Your task to perform on an android device: What's the weather going to be this weekend? Image 0: 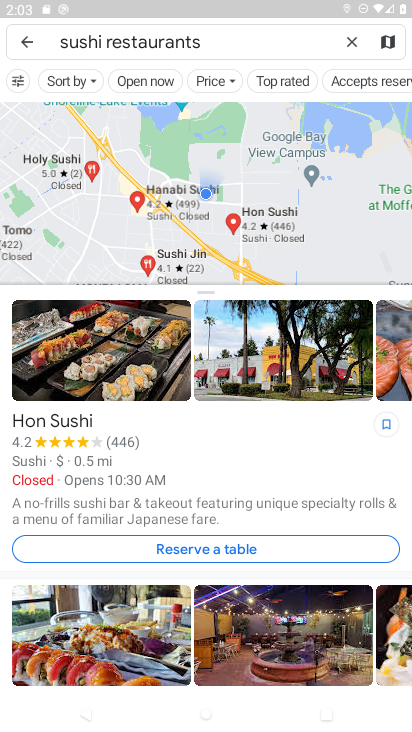
Step 0: press home button
Your task to perform on an android device: What's the weather going to be this weekend? Image 1: 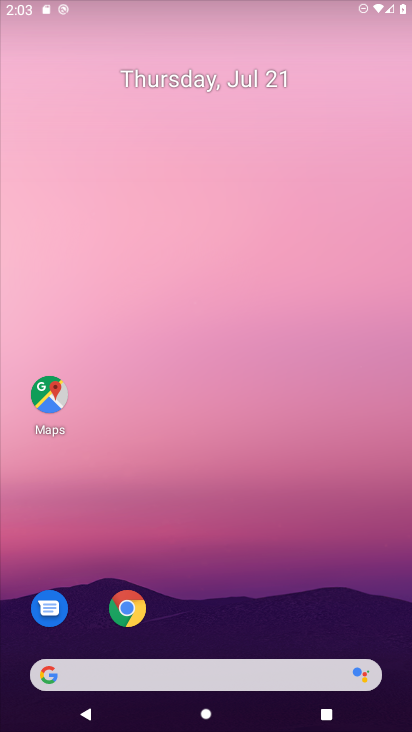
Step 1: drag from (237, 609) to (192, 79)
Your task to perform on an android device: What's the weather going to be this weekend? Image 2: 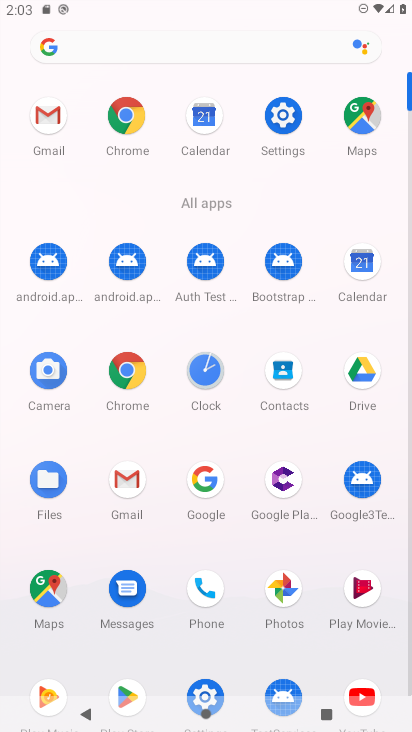
Step 2: click (193, 474)
Your task to perform on an android device: What's the weather going to be this weekend? Image 3: 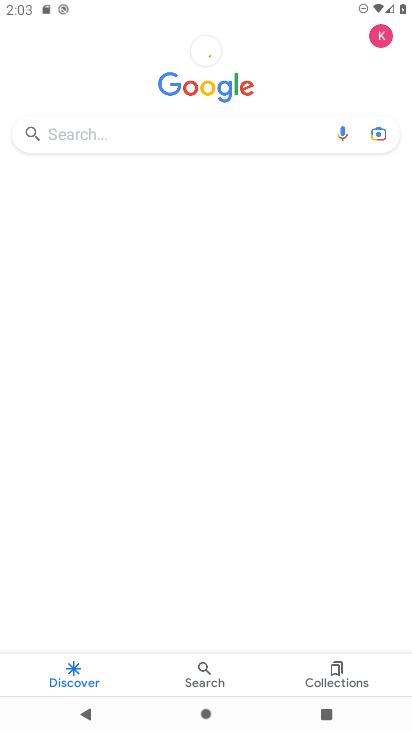
Step 3: click (144, 129)
Your task to perform on an android device: What's the weather going to be this weekend? Image 4: 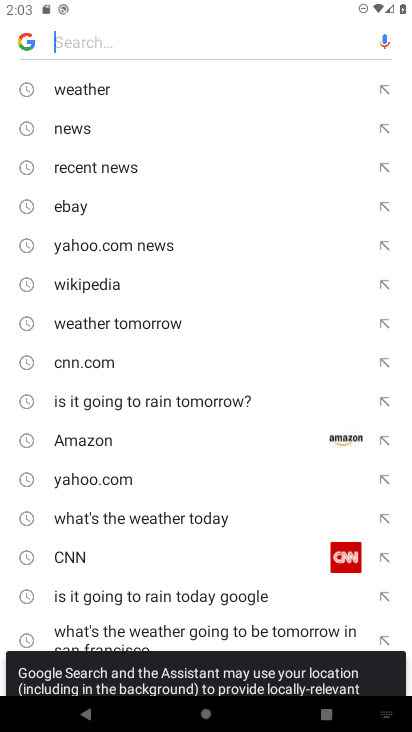
Step 4: click (75, 103)
Your task to perform on an android device: What's the weather going to be this weekend? Image 5: 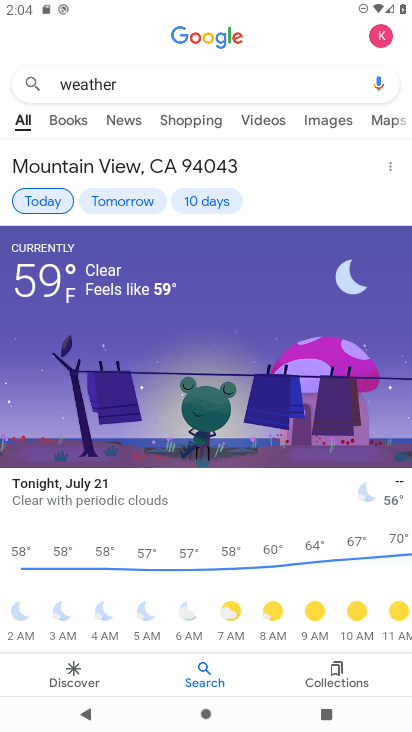
Step 5: click (206, 194)
Your task to perform on an android device: What's the weather going to be this weekend? Image 6: 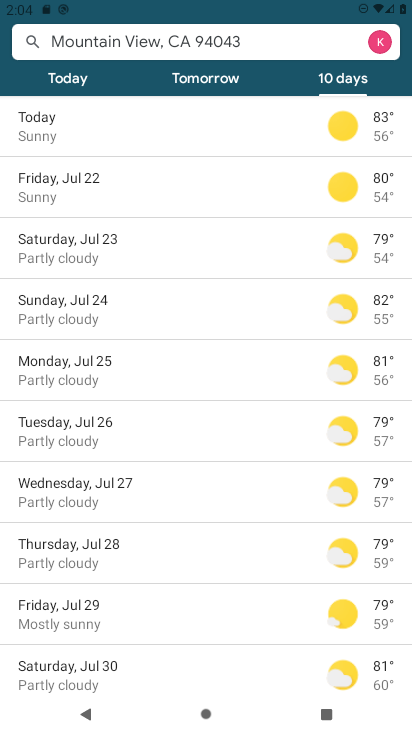
Step 6: task complete